Your task to perform on an android device: install app "Venmo" Image 0: 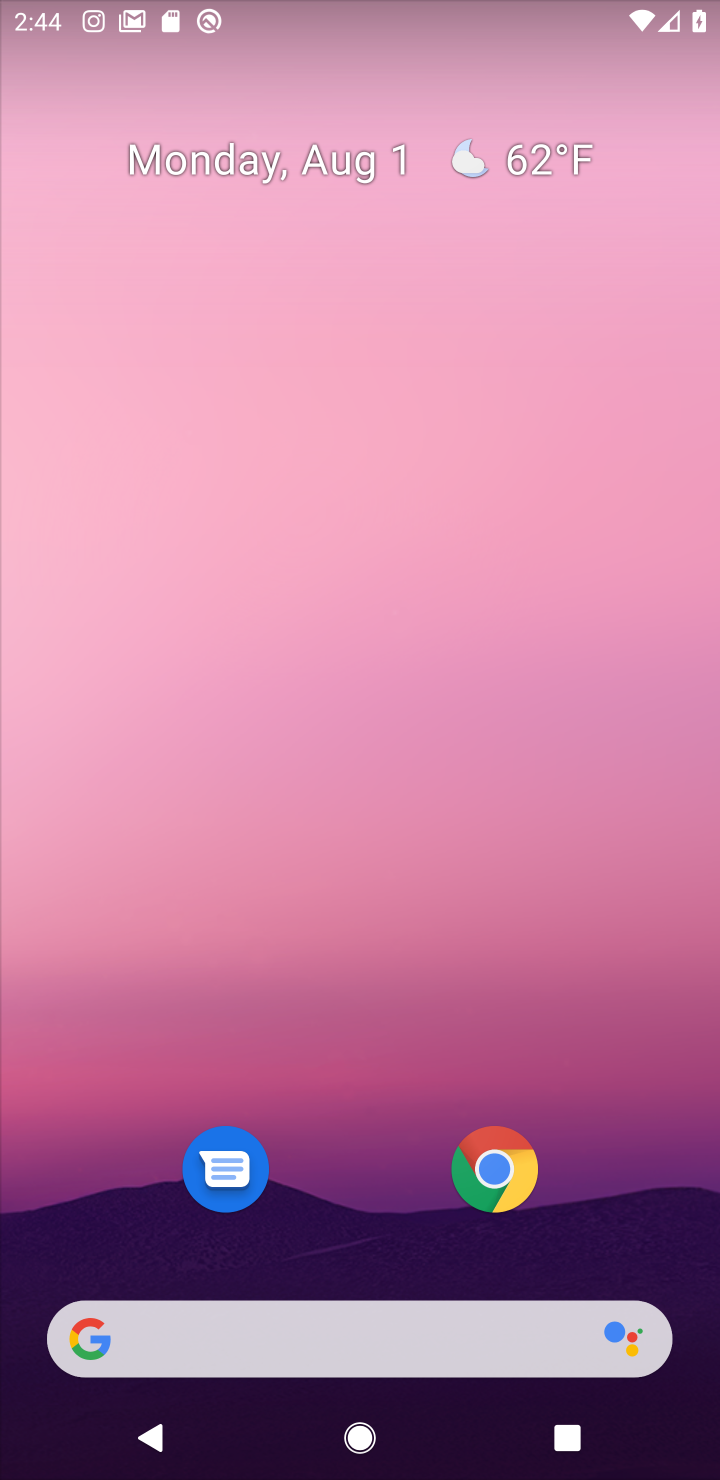
Step 0: drag from (346, 1208) to (419, 38)
Your task to perform on an android device: install app "Venmo" Image 1: 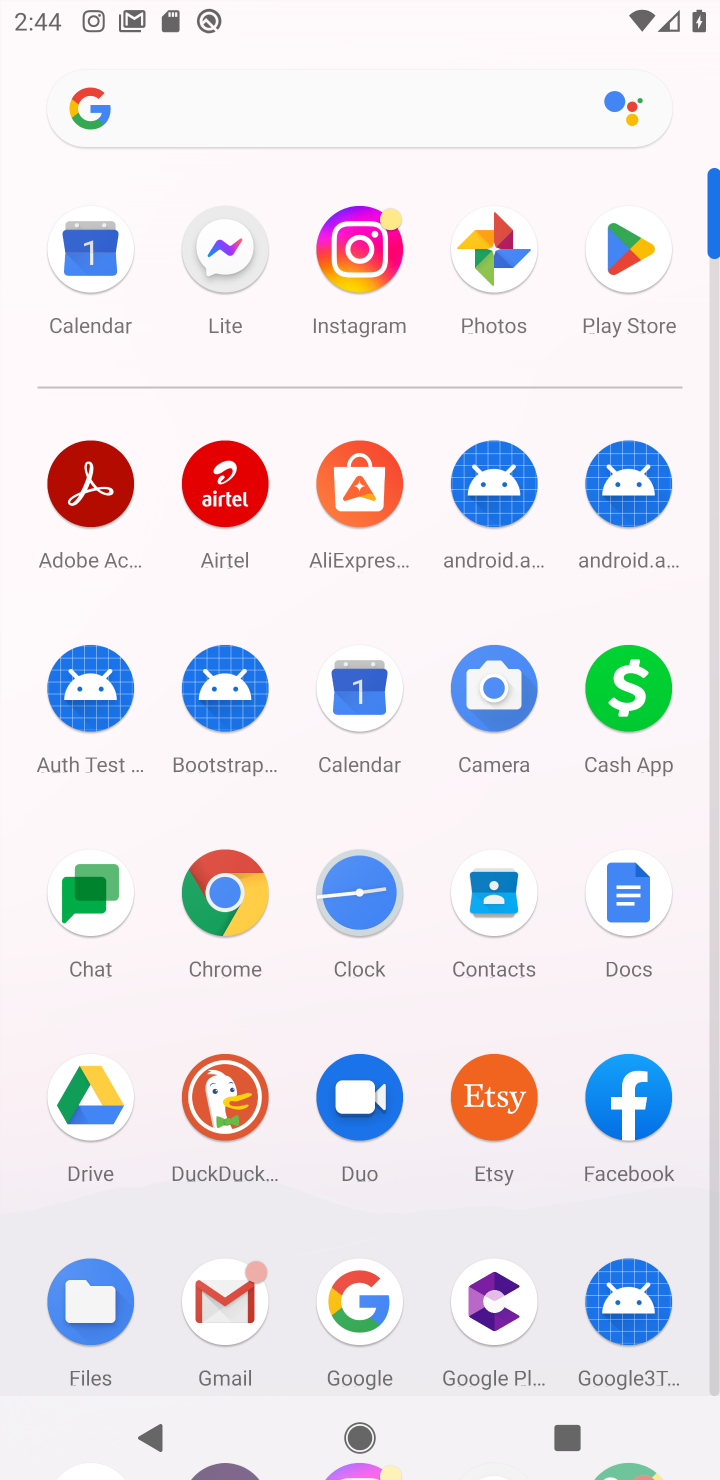
Step 1: click (636, 260)
Your task to perform on an android device: install app "Venmo" Image 2: 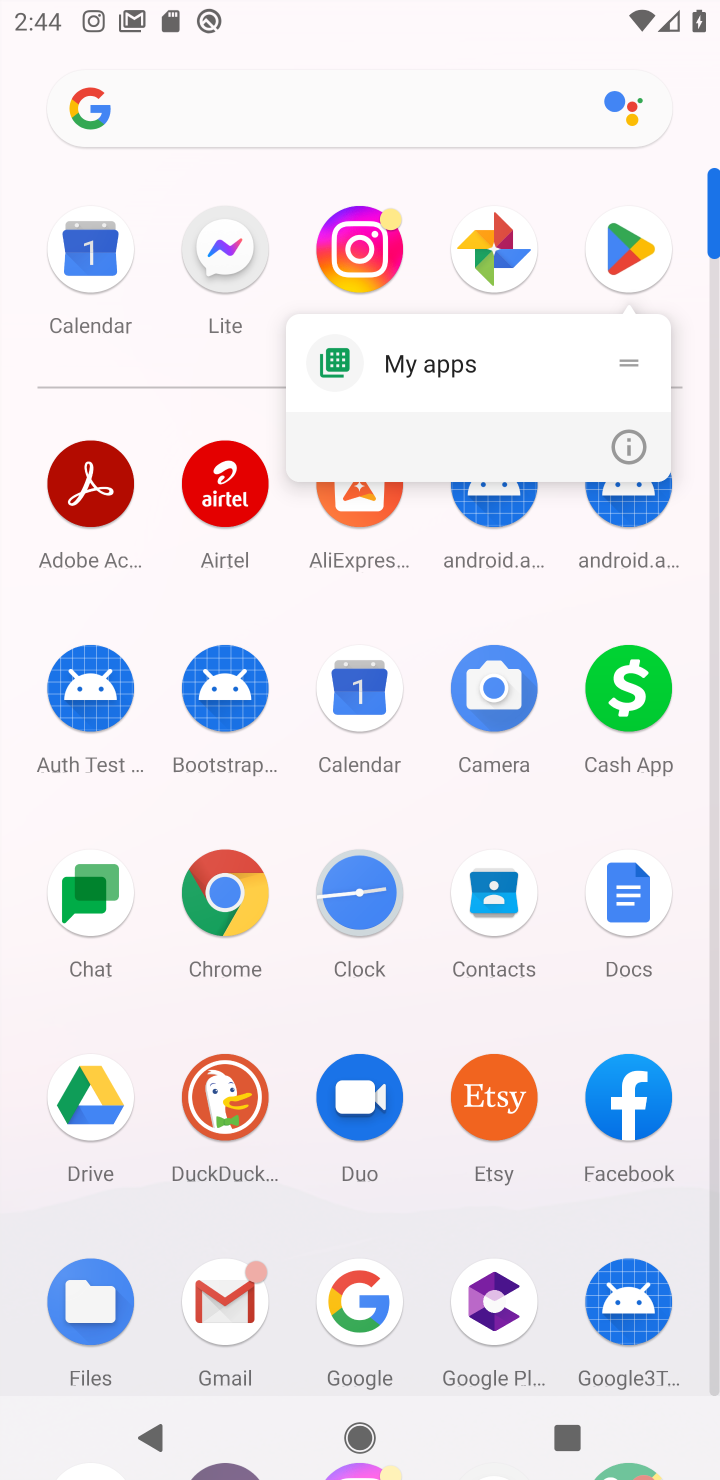
Step 2: click (627, 260)
Your task to perform on an android device: install app "Venmo" Image 3: 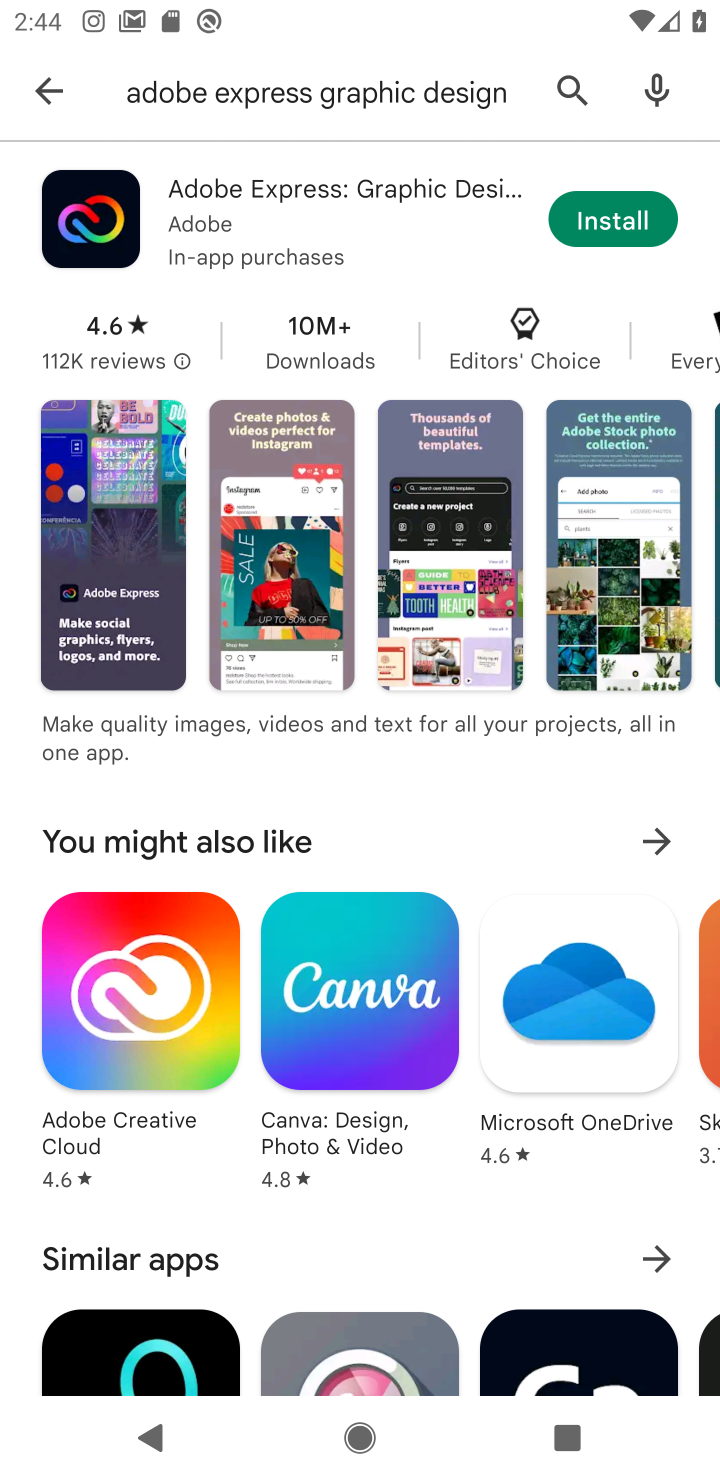
Step 3: click (54, 91)
Your task to perform on an android device: install app "Venmo" Image 4: 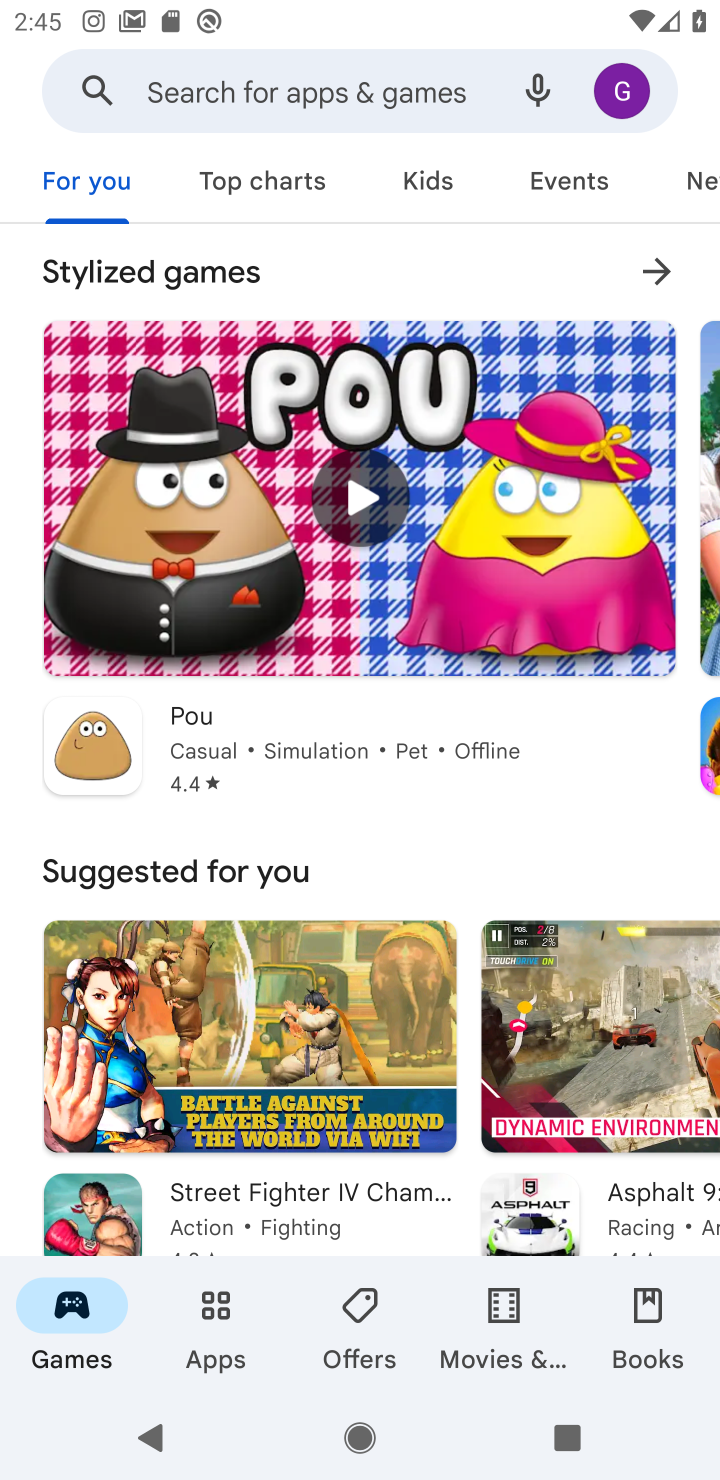
Step 4: type "Venmo"
Your task to perform on an android device: install app "Venmo" Image 5: 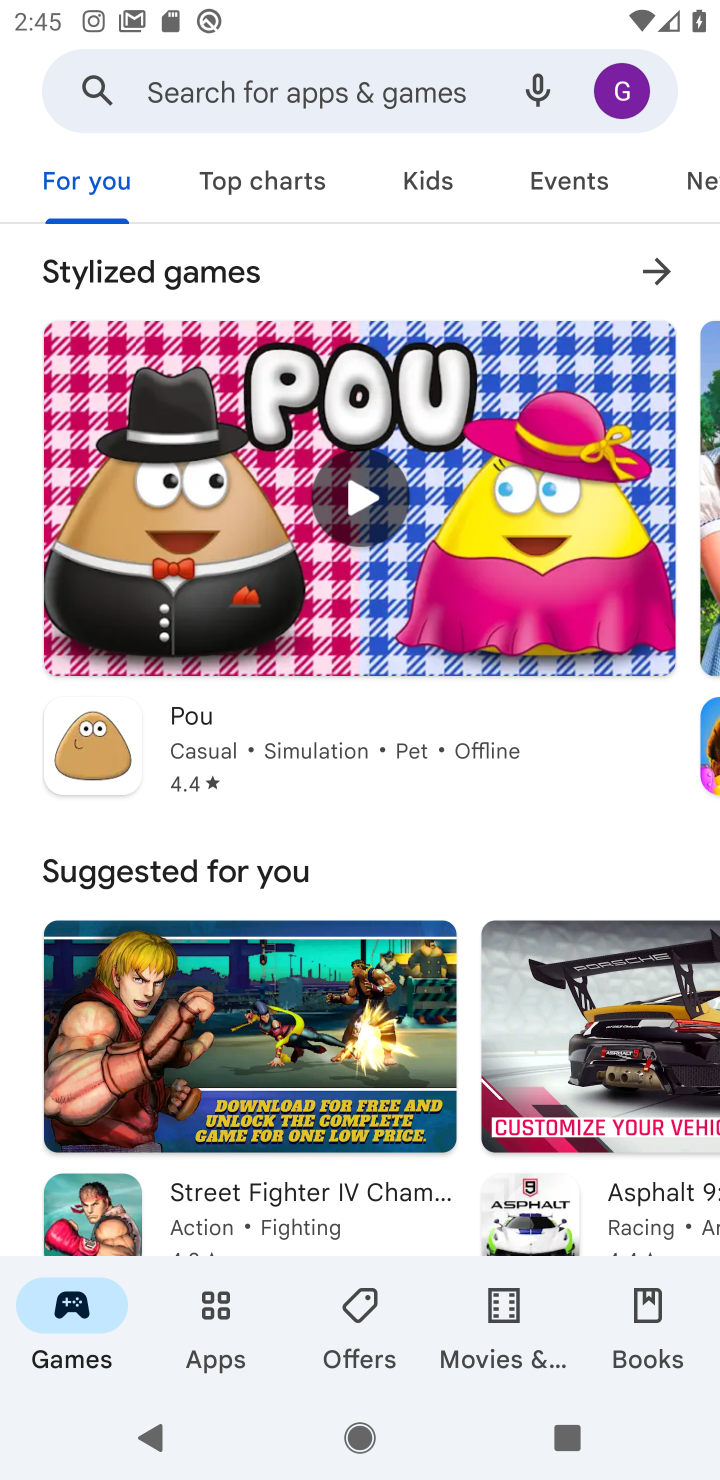
Step 5: click (187, 106)
Your task to perform on an android device: install app "Venmo" Image 6: 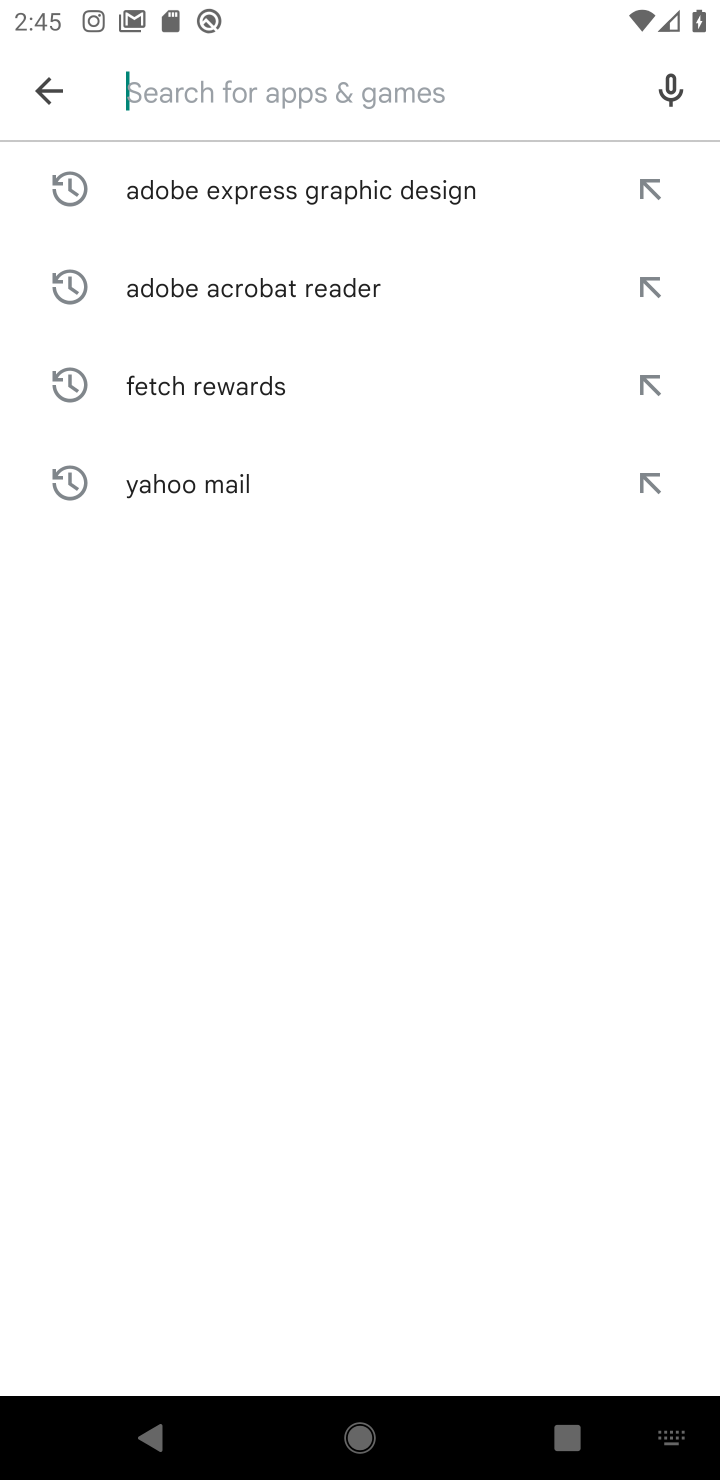
Step 6: type "Venmo"
Your task to perform on an android device: install app "Venmo" Image 7: 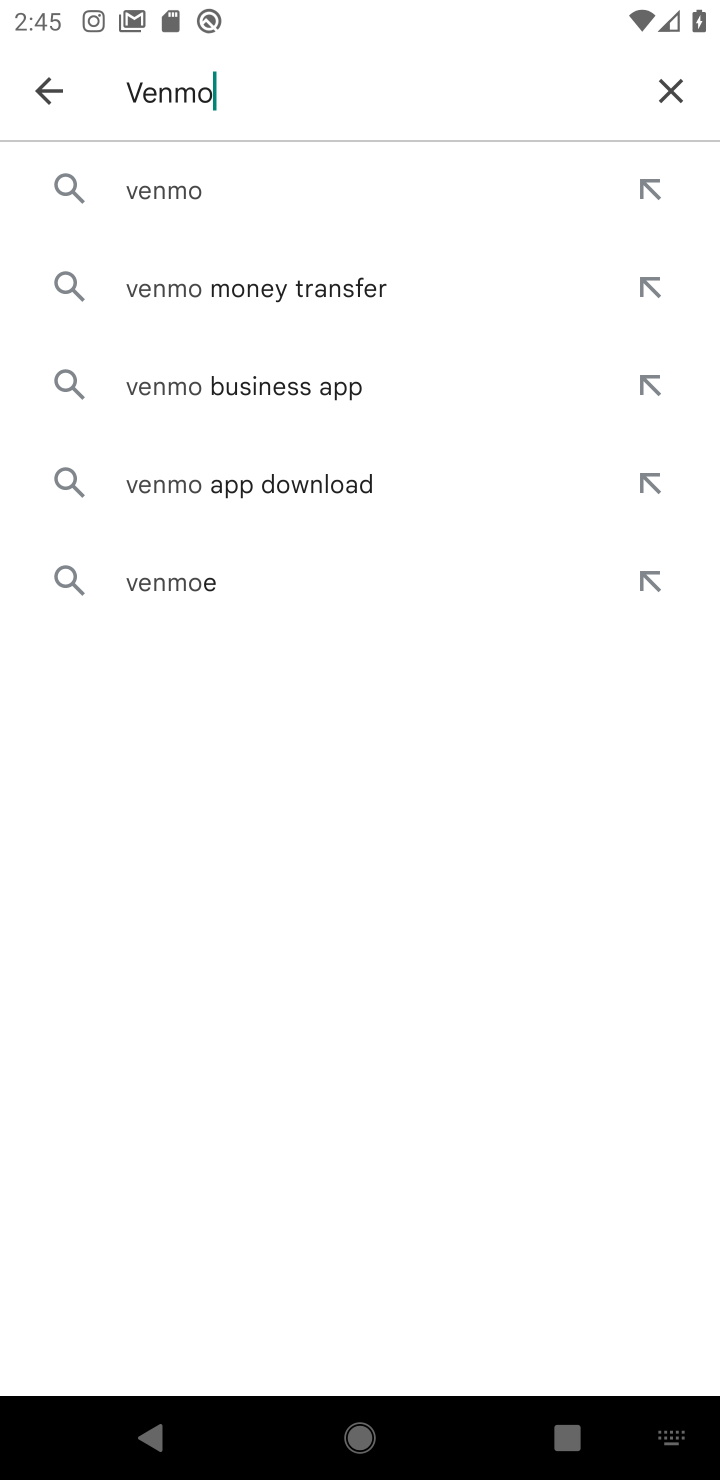
Step 7: click (136, 187)
Your task to perform on an android device: install app "Venmo" Image 8: 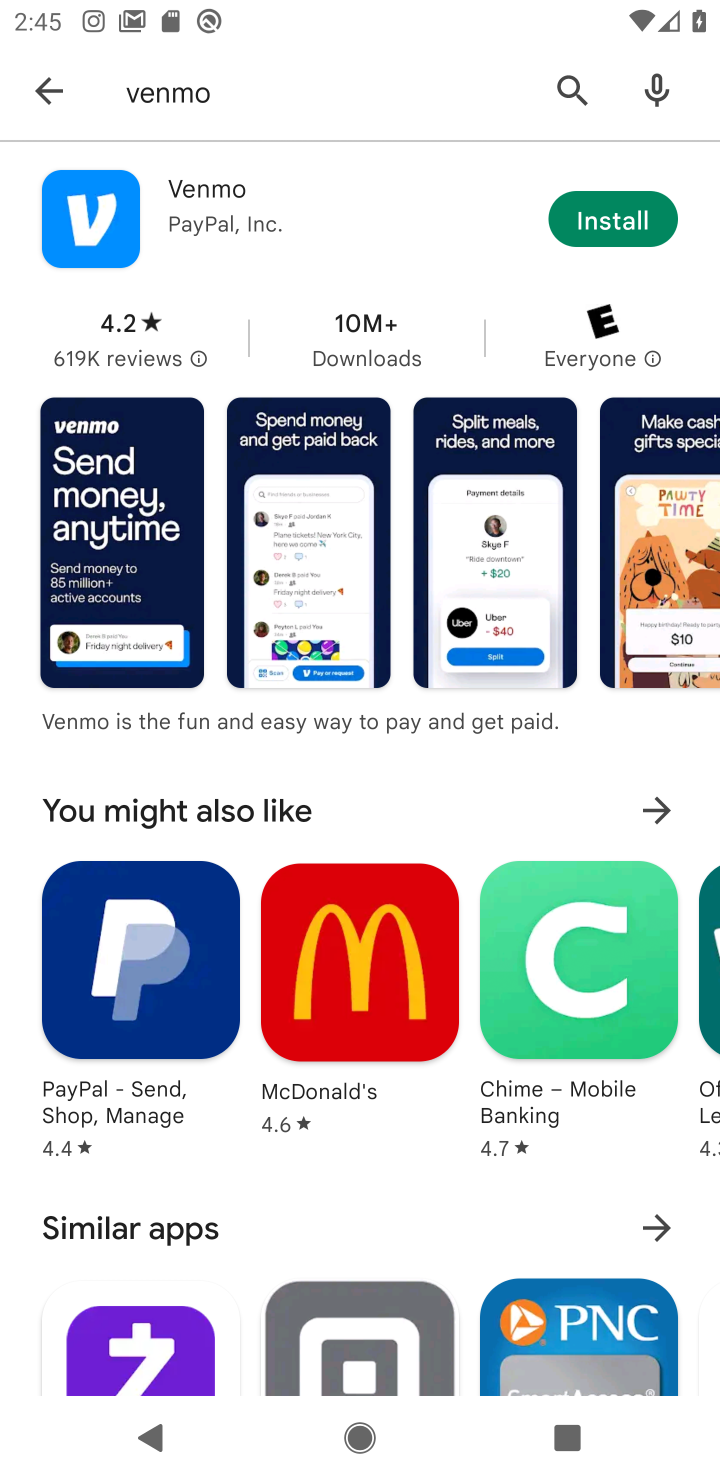
Step 8: click (595, 208)
Your task to perform on an android device: install app "Venmo" Image 9: 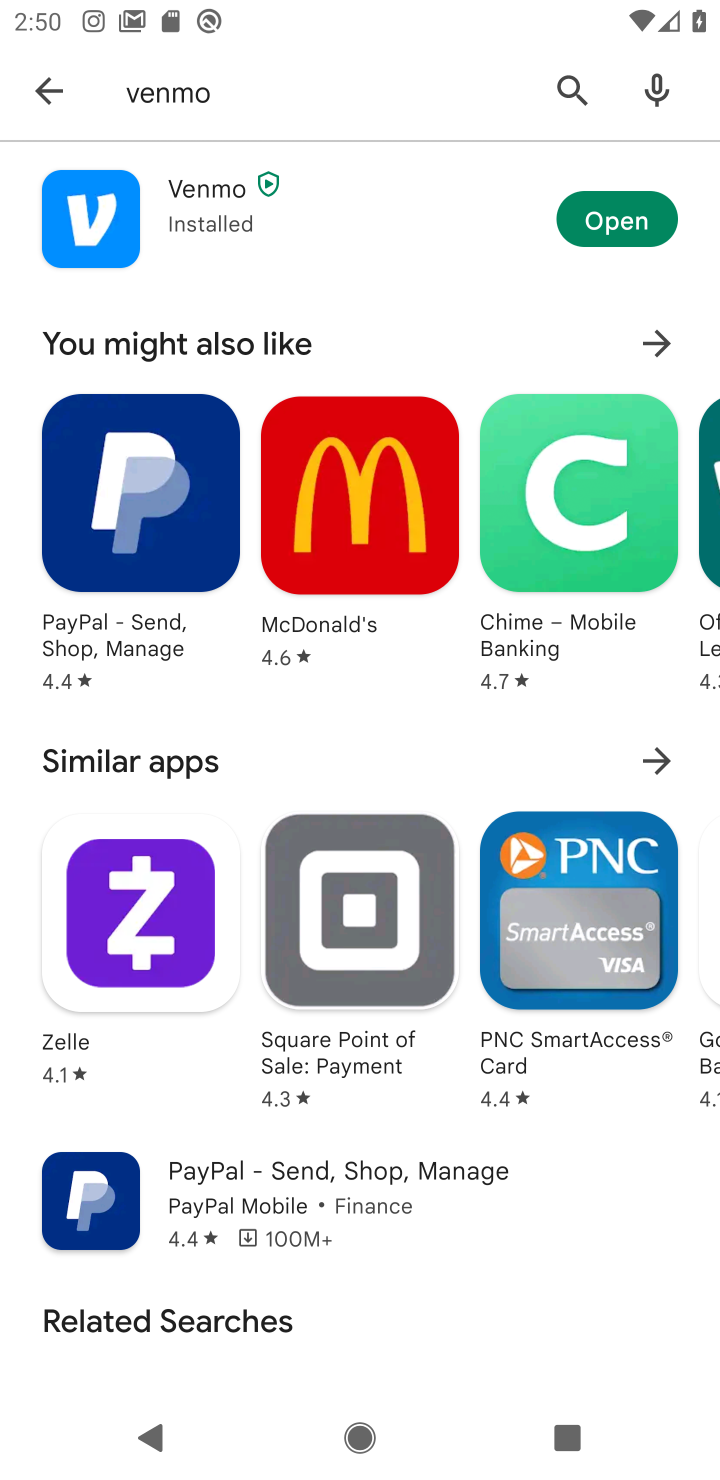
Step 9: task complete